Your task to perform on an android device: turn on location history Image 0: 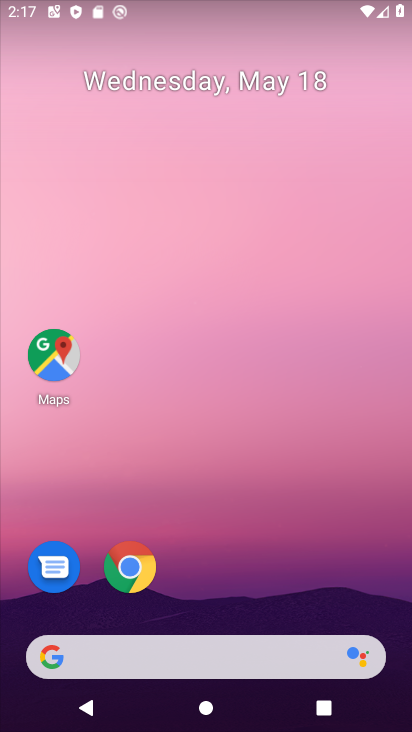
Step 0: drag from (316, 615) to (298, 220)
Your task to perform on an android device: turn on location history Image 1: 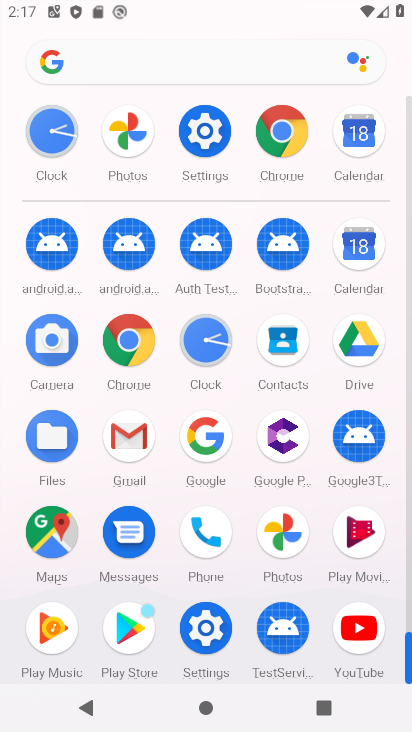
Step 1: click (219, 137)
Your task to perform on an android device: turn on location history Image 2: 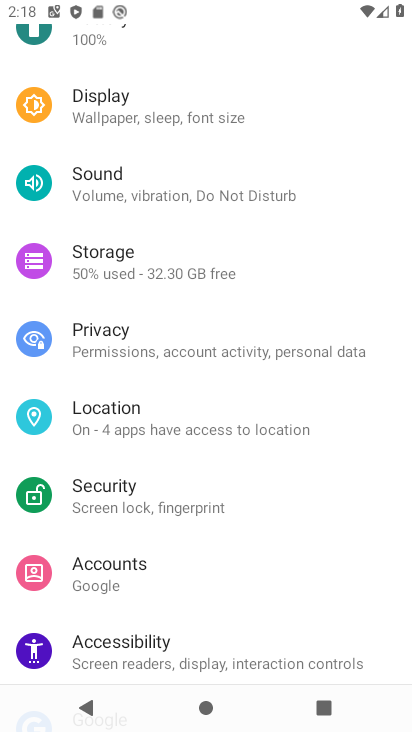
Step 2: click (190, 421)
Your task to perform on an android device: turn on location history Image 3: 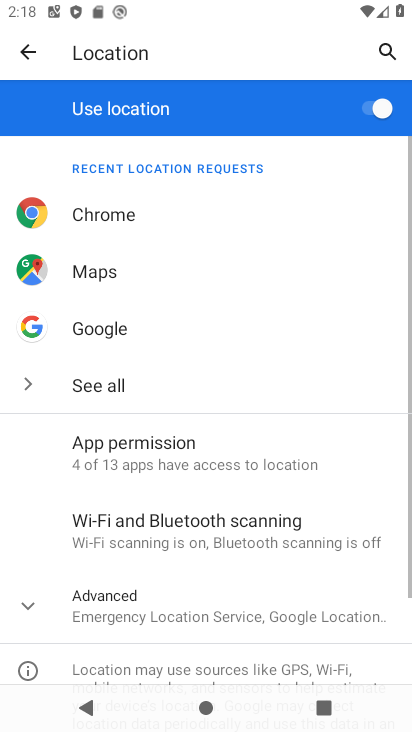
Step 3: drag from (193, 509) to (252, 194)
Your task to perform on an android device: turn on location history Image 4: 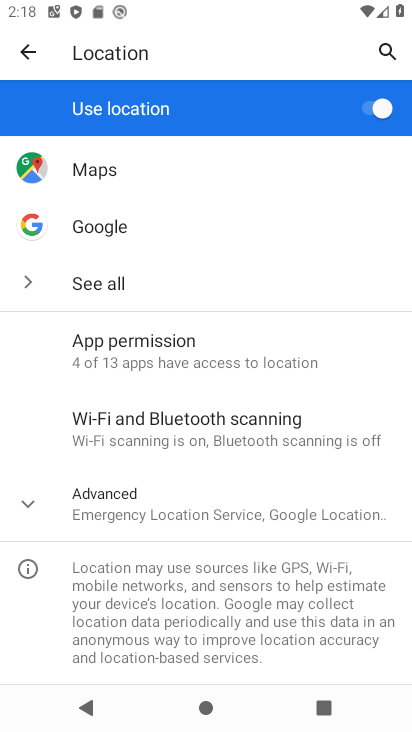
Step 4: click (181, 517)
Your task to perform on an android device: turn on location history Image 5: 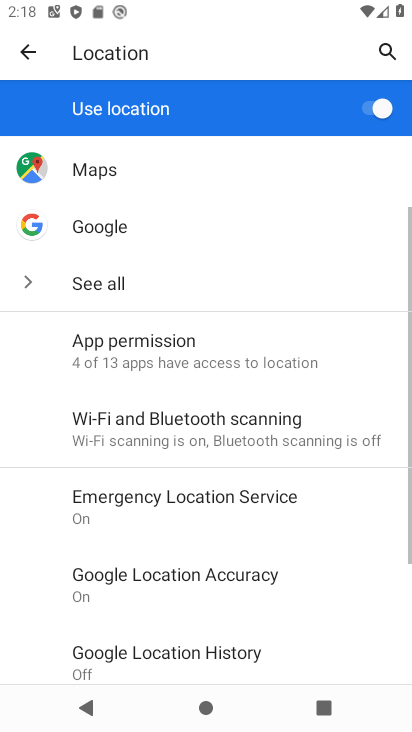
Step 5: drag from (295, 589) to (335, 299)
Your task to perform on an android device: turn on location history Image 6: 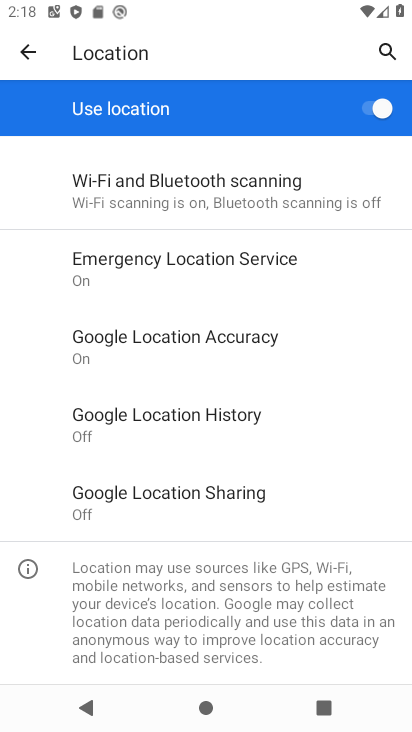
Step 6: click (194, 432)
Your task to perform on an android device: turn on location history Image 7: 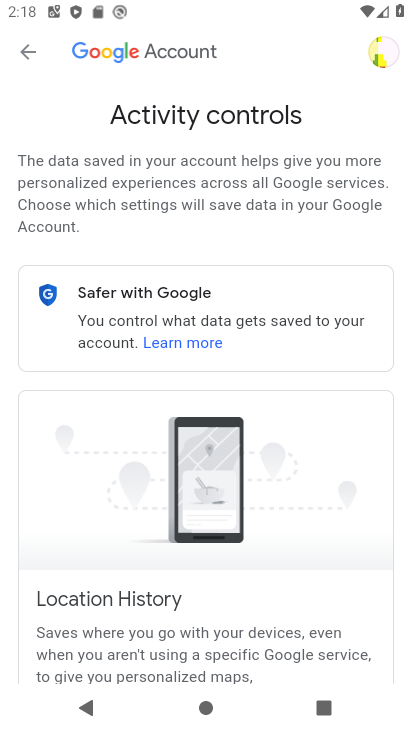
Step 7: drag from (292, 508) to (332, 125)
Your task to perform on an android device: turn on location history Image 8: 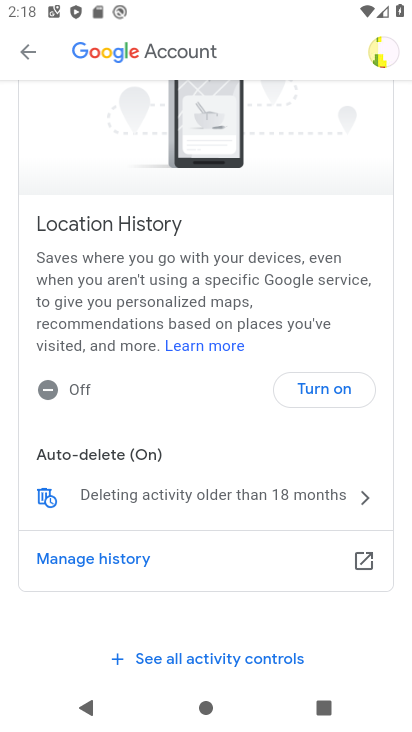
Step 8: click (317, 369)
Your task to perform on an android device: turn on location history Image 9: 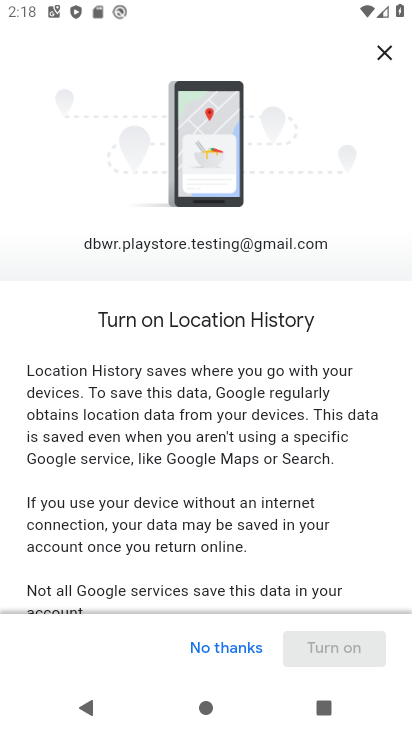
Step 9: drag from (277, 504) to (314, 111)
Your task to perform on an android device: turn on location history Image 10: 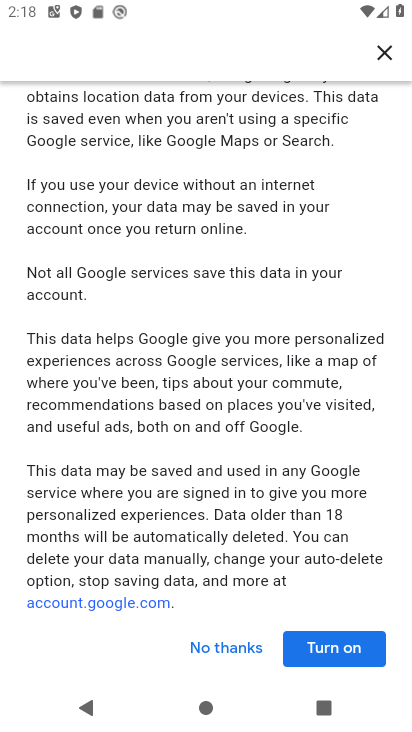
Step 10: click (353, 660)
Your task to perform on an android device: turn on location history Image 11: 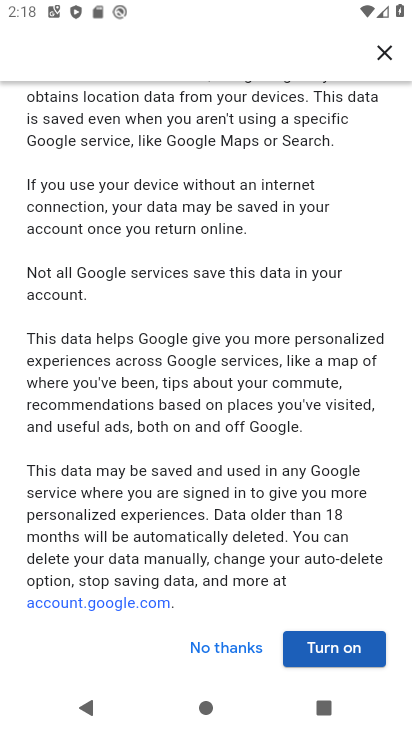
Step 11: click (345, 639)
Your task to perform on an android device: turn on location history Image 12: 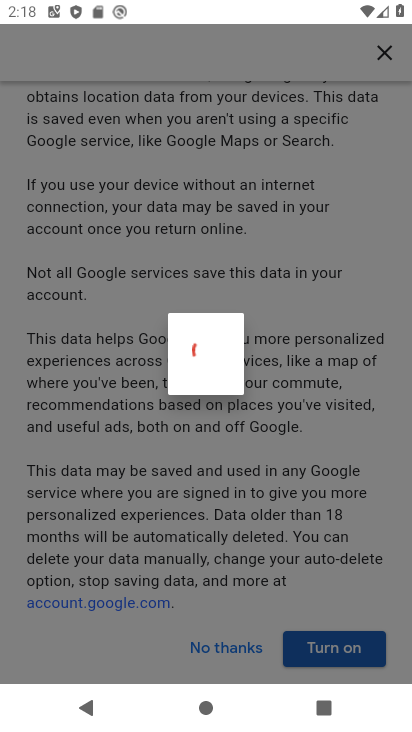
Step 12: click (332, 661)
Your task to perform on an android device: turn on location history Image 13: 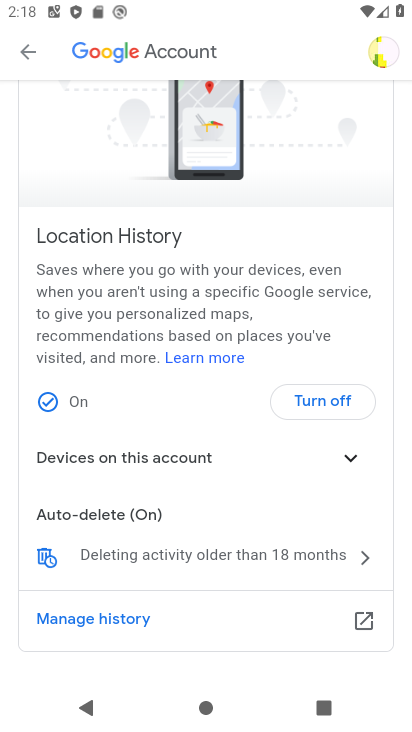
Step 13: task complete